Your task to perform on an android device: Go to notification settings Image 0: 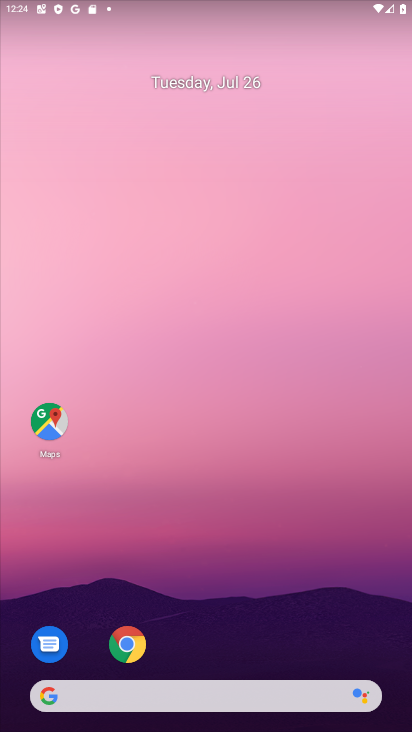
Step 0: drag from (262, 660) to (243, 1)
Your task to perform on an android device: Go to notification settings Image 1: 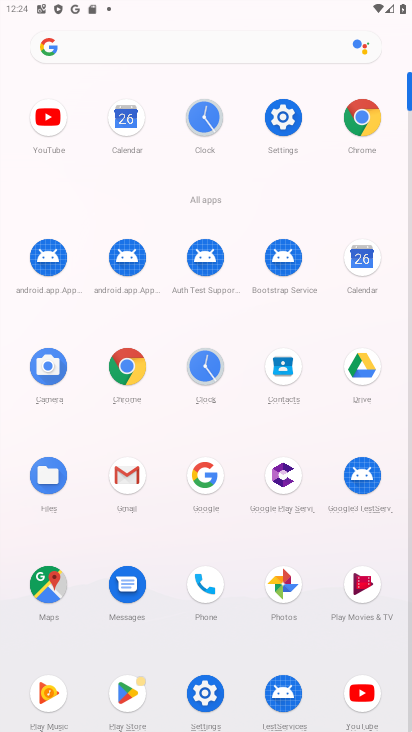
Step 1: click (268, 122)
Your task to perform on an android device: Go to notification settings Image 2: 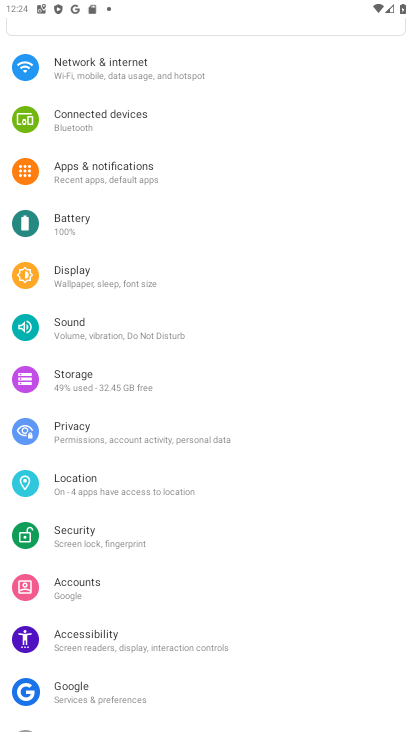
Step 2: click (148, 175)
Your task to perform on an android device: Go to notification settings Image 3: 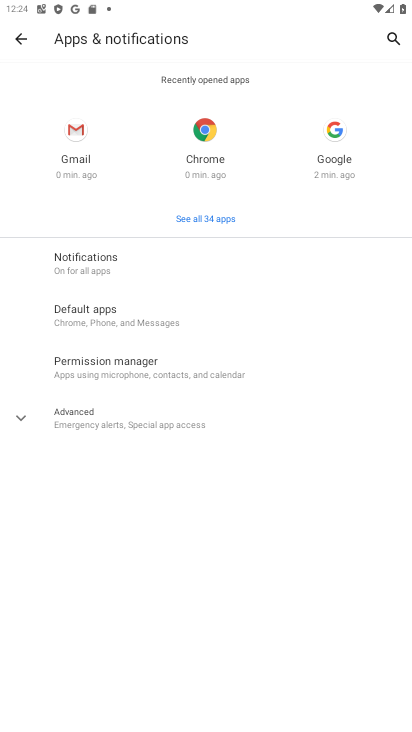
Step 3: click (99, 262)
Your task to perform on an android device: Go to notification settings Image 4: 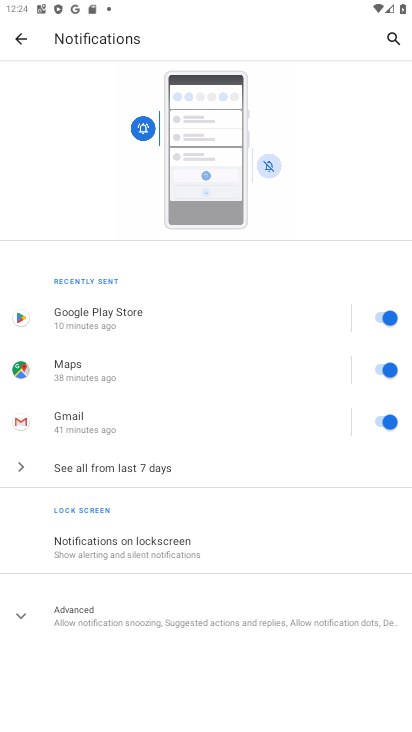
Step 4: task complete